Your task to perform on an android device: toggle notifications settings in the gmail app Image 0: 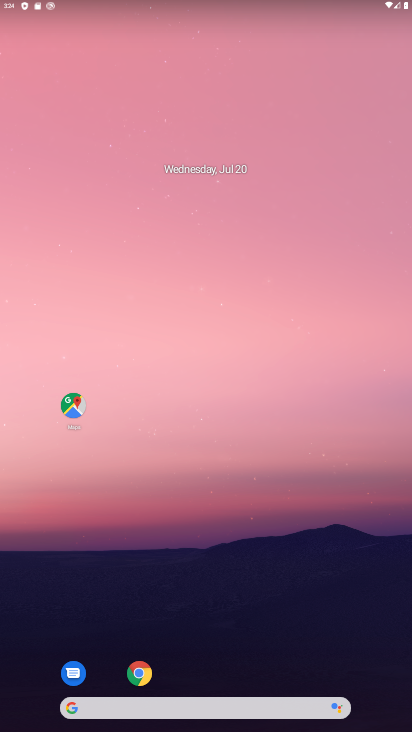
Step 0: drag from (249, 571) to (270, 333)
Your task to perform on an android device: toggle notifications settings in the gmail app Image 1: 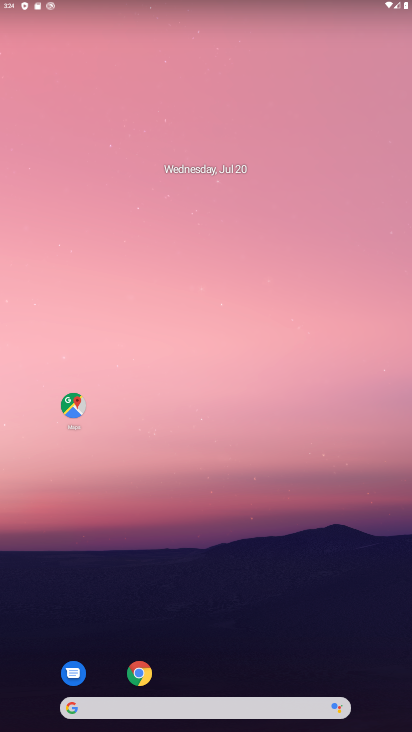
Step 1: task complete